Your task to perform on an android device: What's on my calendar today? Image 0: 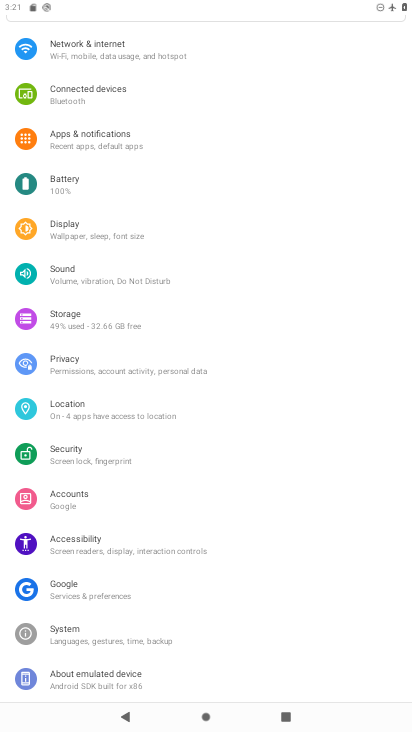
Step 0: press home button
Your task to perform on an android device: What's on my calendar today? Image 1: 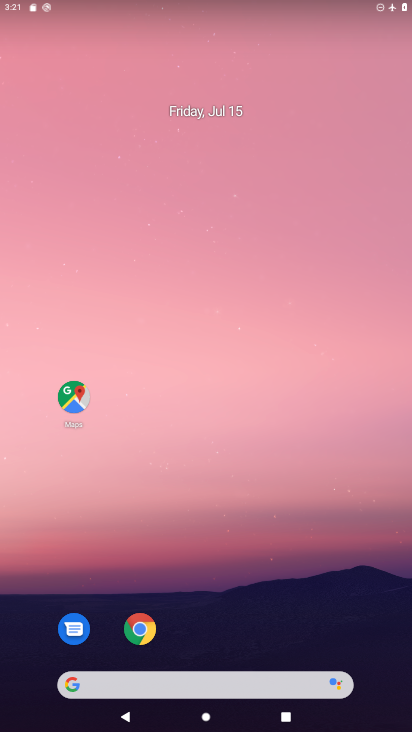
Step 1: drag from (285, 336) to (217, 7)
Your task to perform on an android device: What's on my calendar today? Image 2: 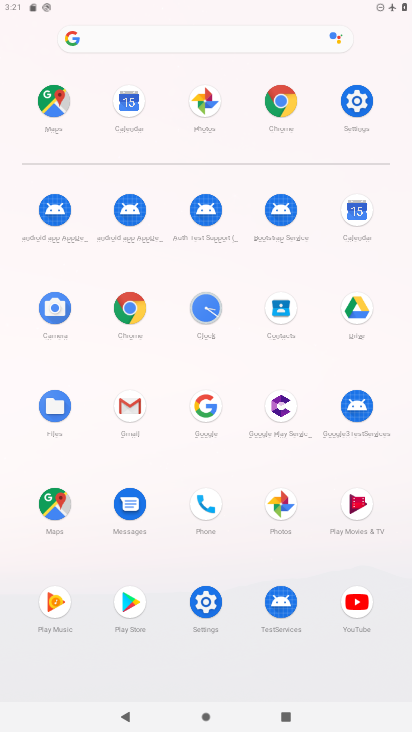
Step 2: click (353, 213)
Your task to perform on an android device: What's on my calendar today? Image 3: 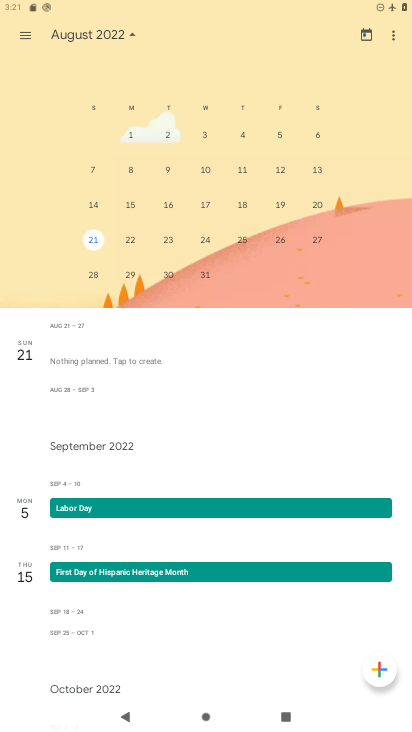
Step 3: task complete